Your task to perform on an android device: turn off sleep mode Image 0: 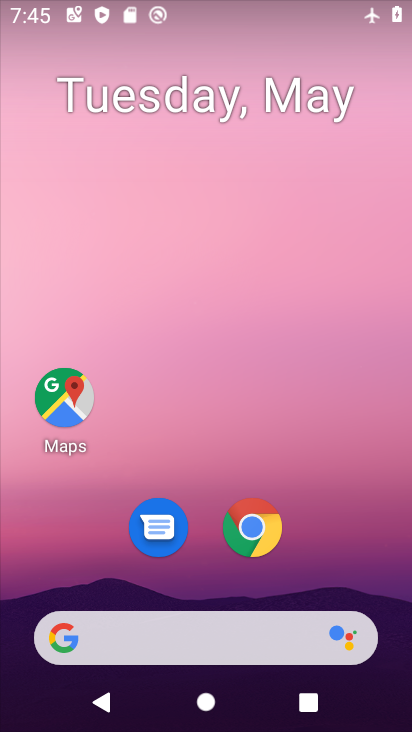
Step 0: drag from (342, 504) to (265, 147)
Your task to perform on an android device: turn off sleep mode Image 1: 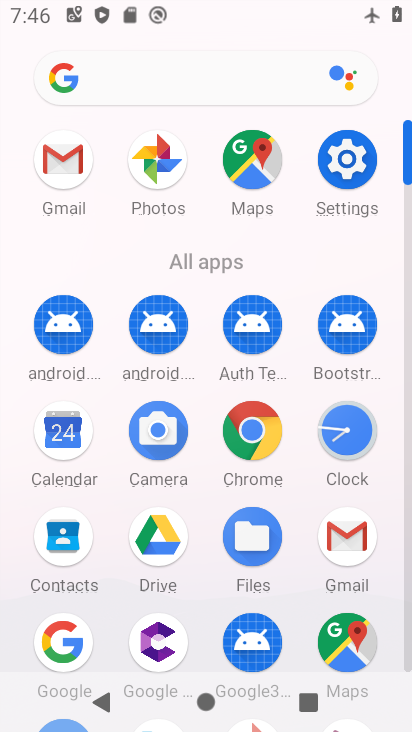
Step 1: click (350, 156)
Your task to perform on an android device: turn off sleep mode Image 2: 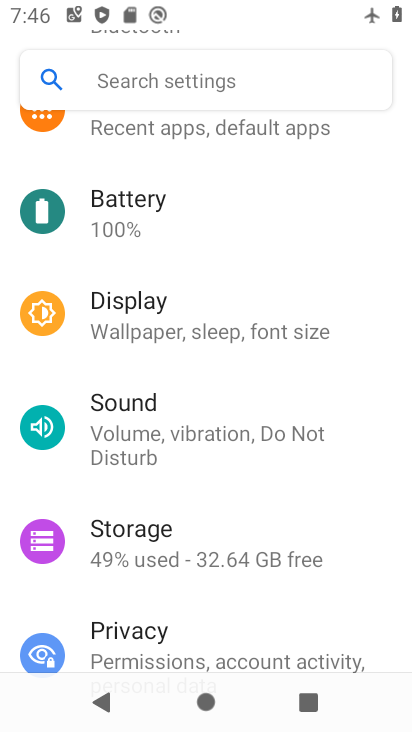
Step 2: click (209, 321)
Your task to perform on an android device: turn off sleep mode Image 3: 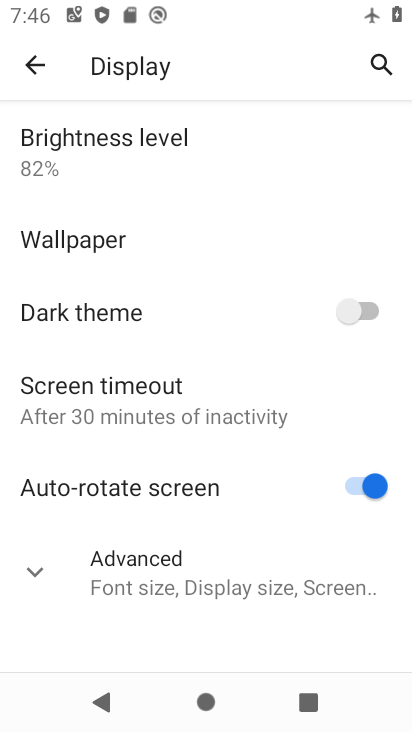
Step 3: click (194, 390)
Your task to perform on an android device: turn off sleep mode Image 4: 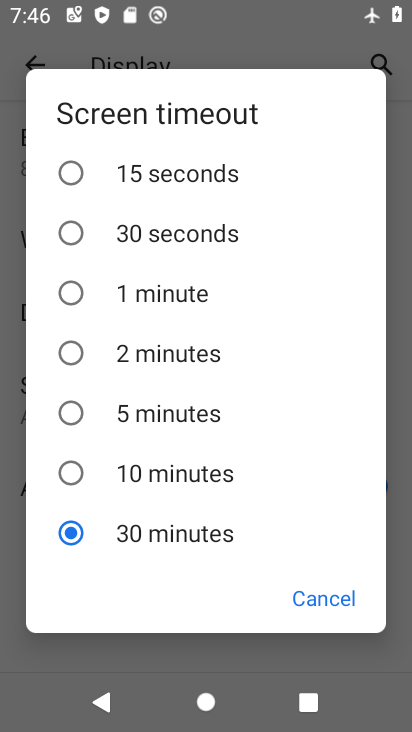
Step 4: drag from (220, 289) to (227, 377)
Your task to perform on an android device: turn off sleep mode Image 5: 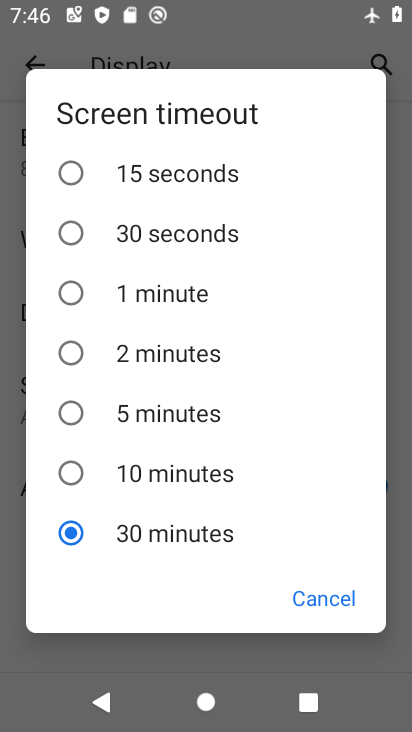
Step 5: click (300, 602)
Your task to perform on an android device: turn off sleep mode Image 6: 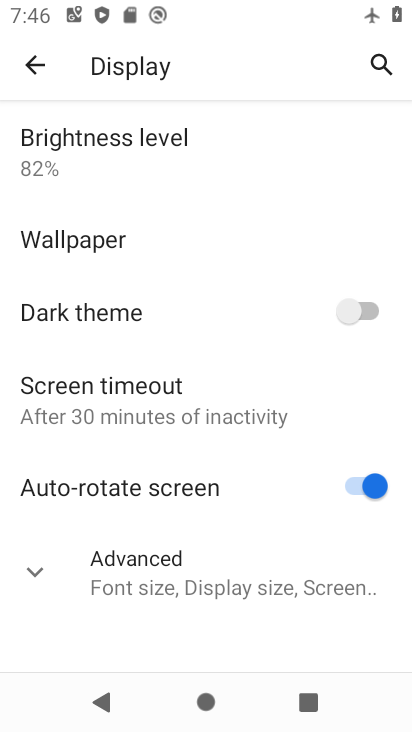
Step 6: click (204, 573)
Your task to perform on an android device: turn off sleep mode Image 7: 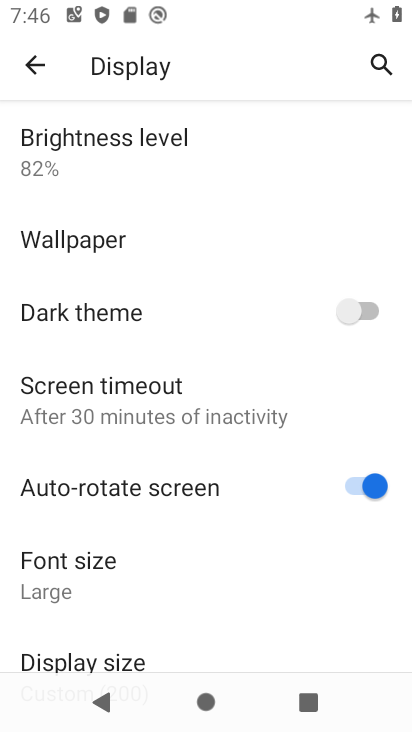
Step 7: drag from (118, 599) to (195, 463)
Your task to perform on an android device: turn off sleep mode Image 8: 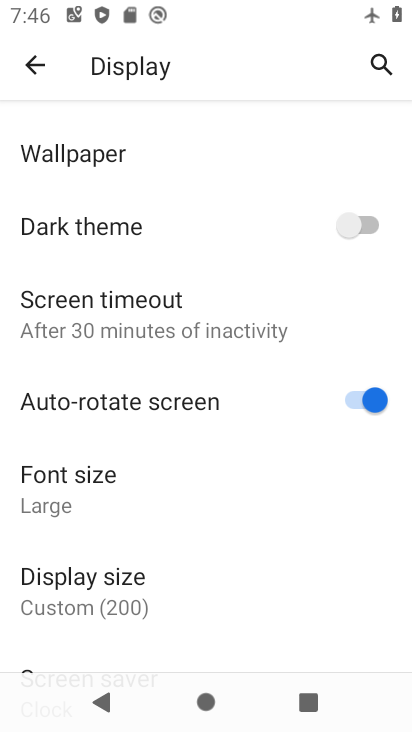
Step 8: drag from (164, 599) to (232, 446)
Your task to perform on an android device: turn off sleep mode Image 9: 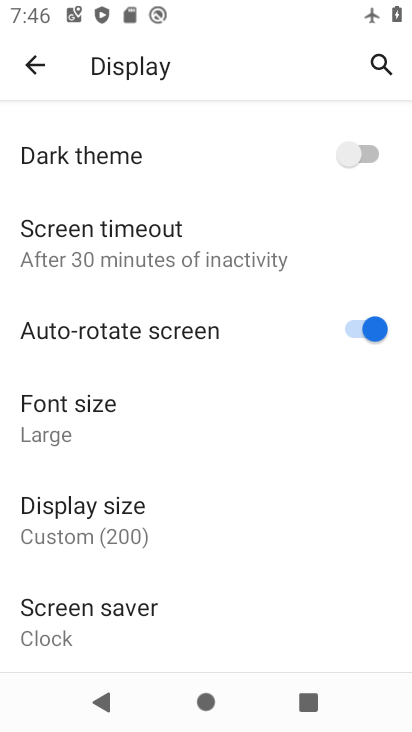
Step 9: click (145, 613)
Your task to perform on an android device: turn off sleep mode Image 10: 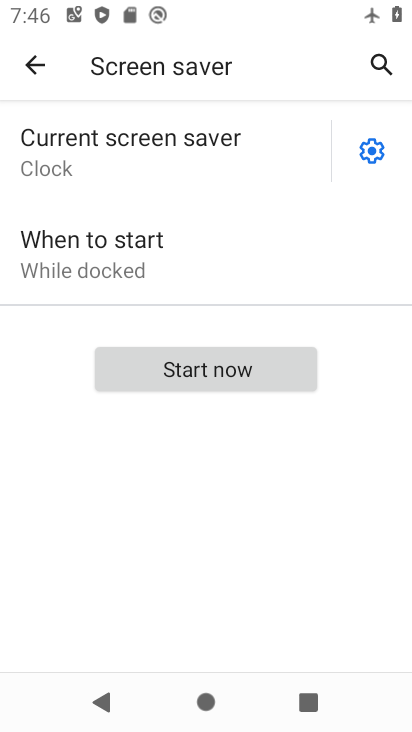
Step 10: click (154, 135)
Your task to perform on an android device: turn off sleep mode Image 11: 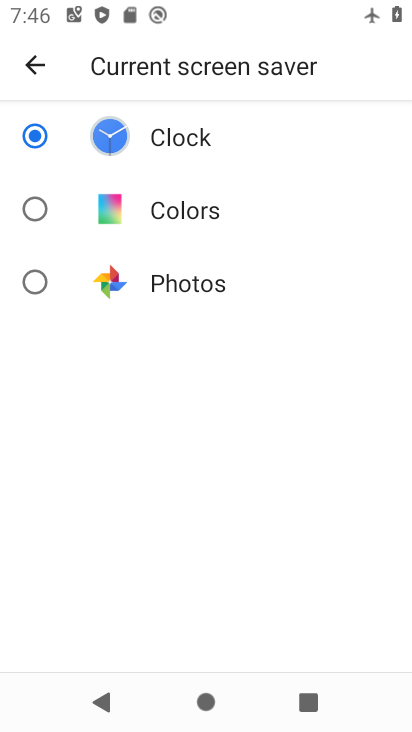
Step 11: press back button
Your task to perform on an android device: turn off sleep mode Image 12: 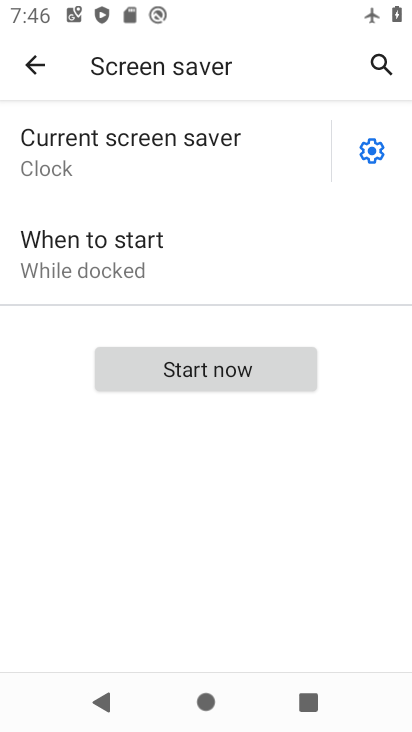
Step 12: click (131, 251)
Your task to perform on an android device: turn off sleep mode Image 13: 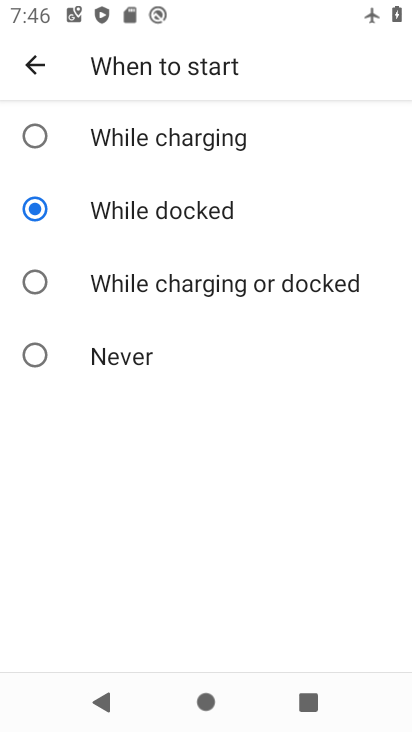
Step 13: press back button
Your task to perform on an android device: turn off sleep mode Image 14: 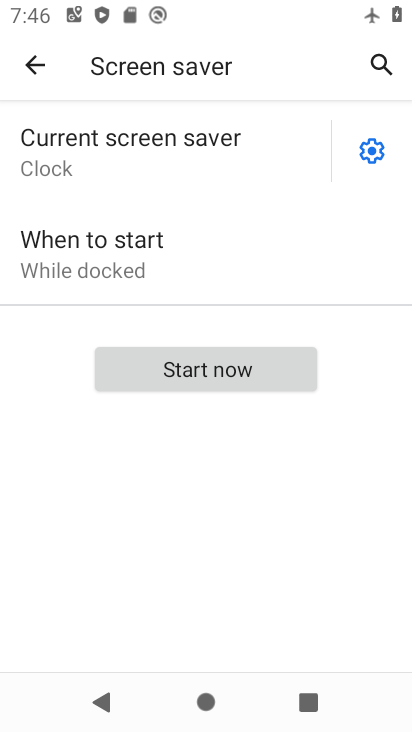
Step 14: click (374, 150)
Your task to perform on an android device: turn off sleep mode Image 15: 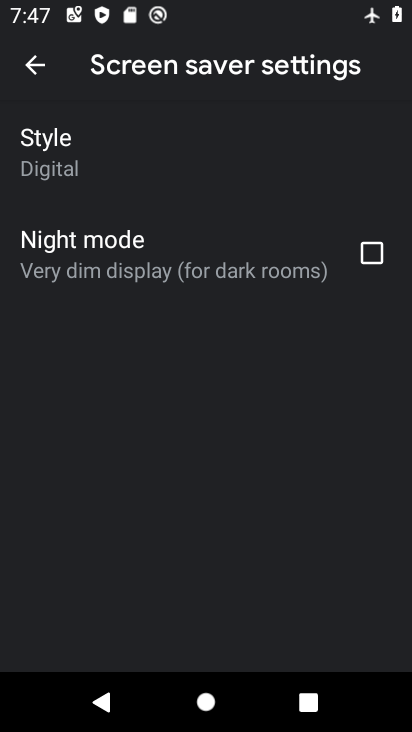
Step 15: task complete